Your task to perform on an android device: set an alarm Image 0: 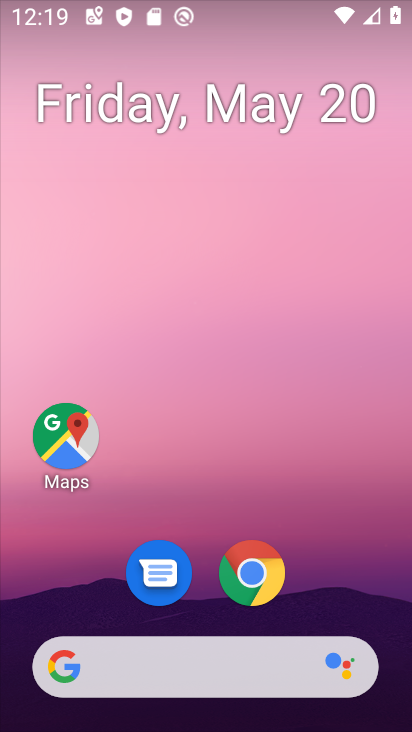
Step 0: drag from (324, 564) to (340, 121)
Your task to perform on an android device: set an alarm Image 1: 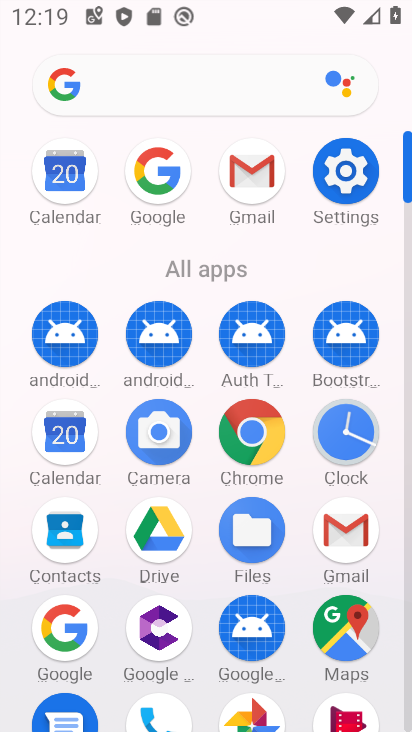
Step 1: click (354, 441)
Your task to perform on an android device: set an alarm Image 2: 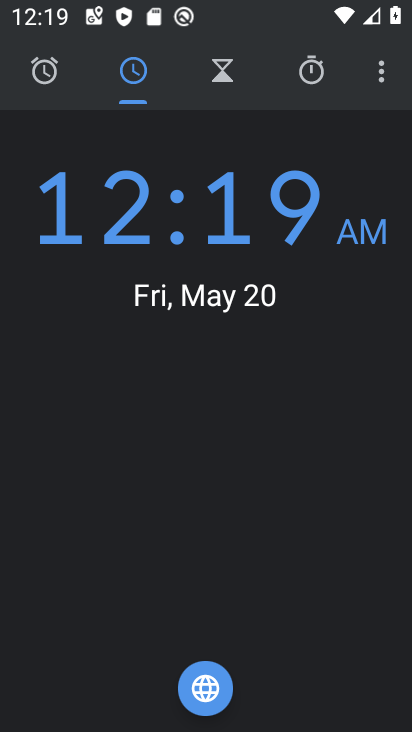
Step 2: click (41, 76)
Your task to perform on an android device: set an alarm Image 3: 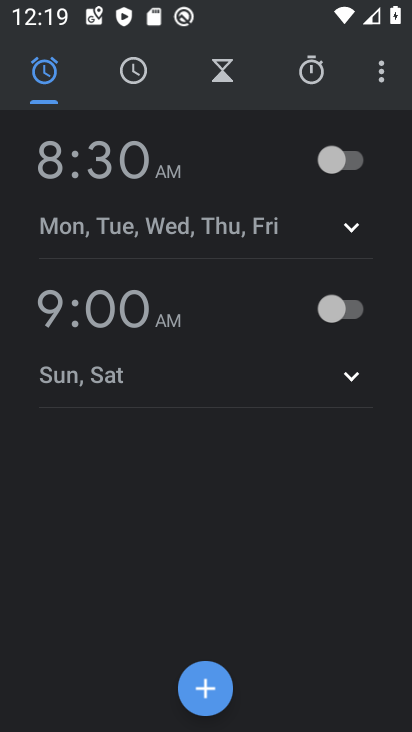
Step 3: click (348, 170)
Your task to perform on an android device: set an alarm Image 4: 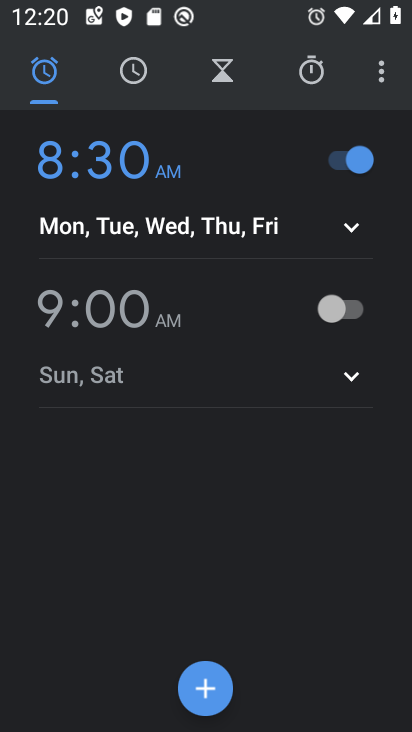
Step 4: task complete